Your task to perform on an android device: open chrome privacy settings Image 0: 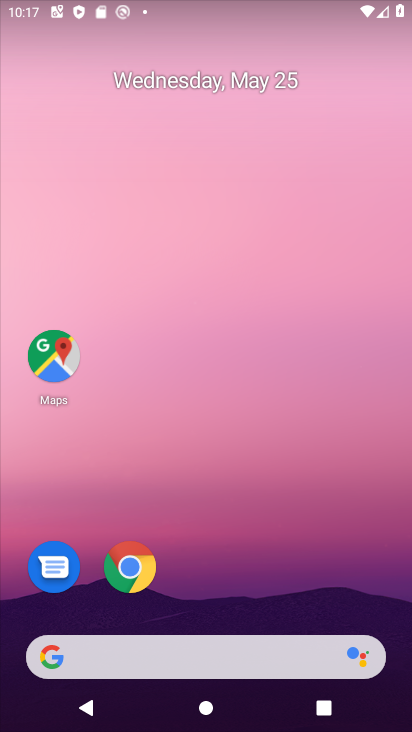
Step 0: drag from (225, 611) to (405, 86)
Your task to perform on an android device: open chrome privacy settings Image 1: 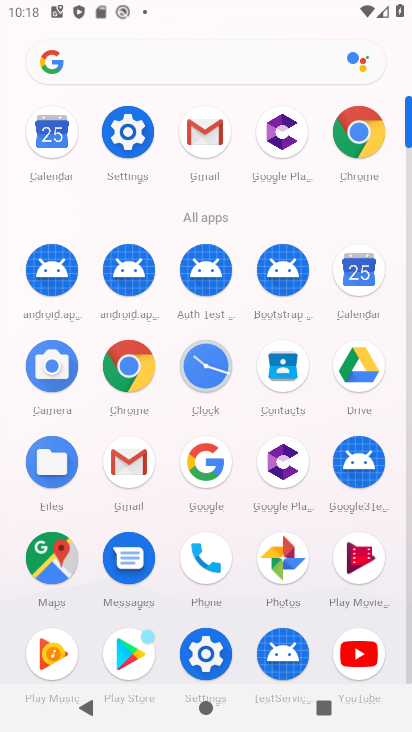
Step 1: click (214, 649)
Your task to perform on an android device: open chrome privacy settings Image 2: 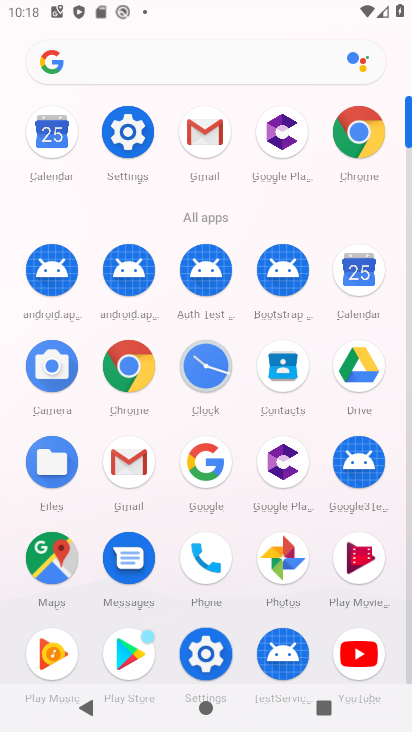
Step 2: click (221, 672)
Your task to perform on an android device: open chrome privacy settings Image 3: 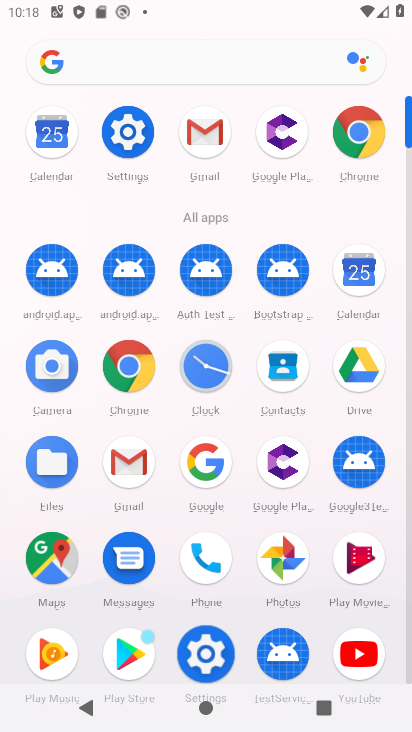
Step 3: click (210, 673)
Your task to perform on an android device: open chrome privacy settings Image 4: 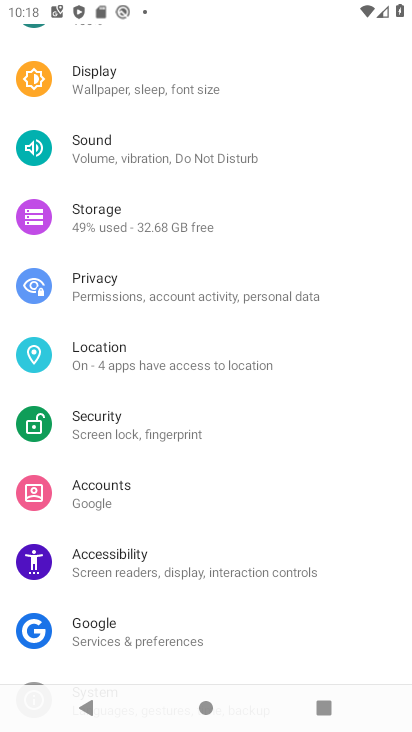
Step 4: click (110, 284)
Your task to perform on an android device: open chrome privacy settings Image 5: 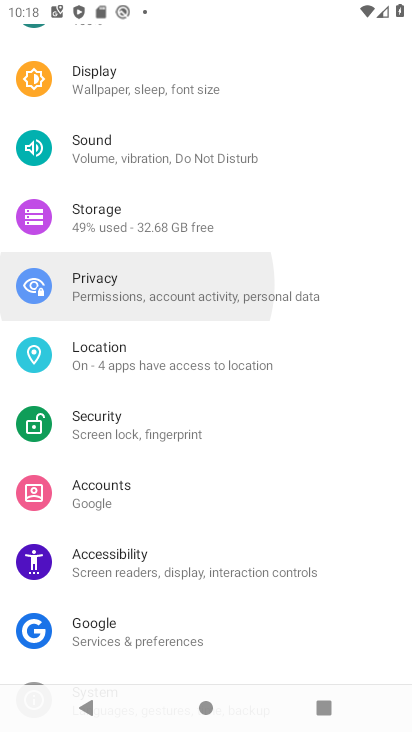
Step 5: click (110, 284)
Your task to perform on an android device: open chrome privacy settings Image 6: 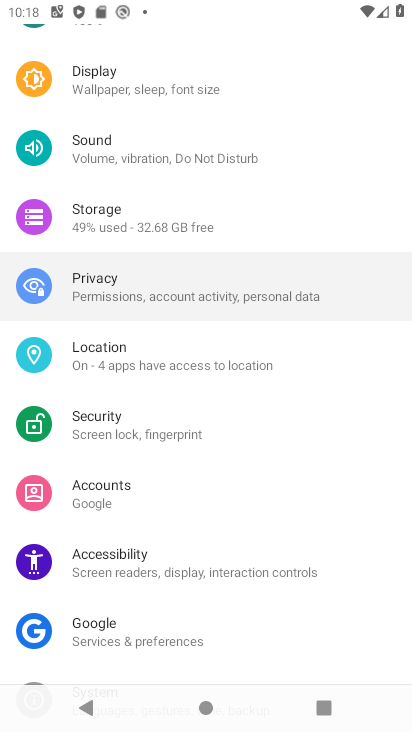
Step 6: click (110, 284)
Your task to perform on an android device: open chrome privacy settings Image 7: 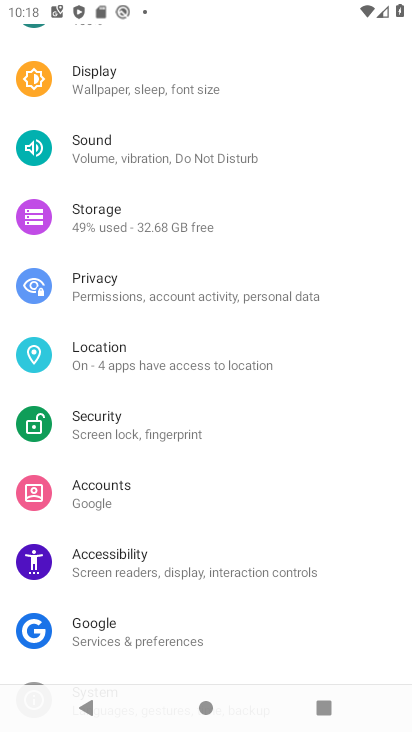
Step 7: click (111, 285)
Your task to perform on an android device: open chrome privacy settings Image 8: 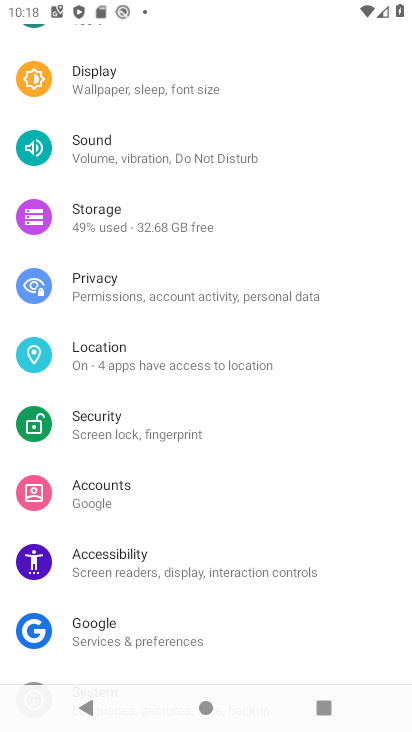
Step 8: click (116, 288)
Your task to perform on an android device: open chrome privacy settings Image 9: 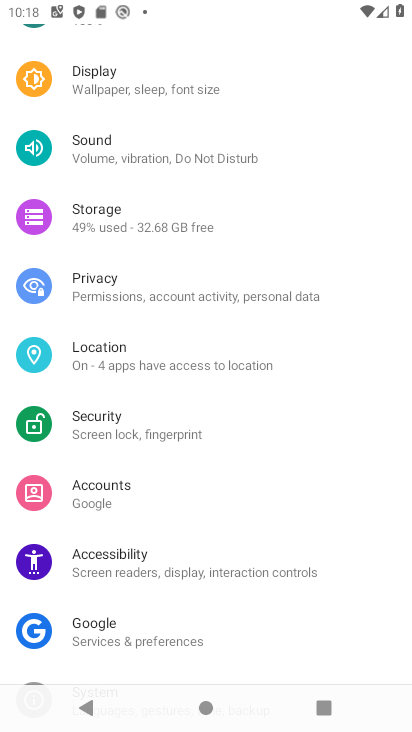
Step 9: click (117, 287)
Your task to perform on an android device: open chrome privacy settings Image 10: 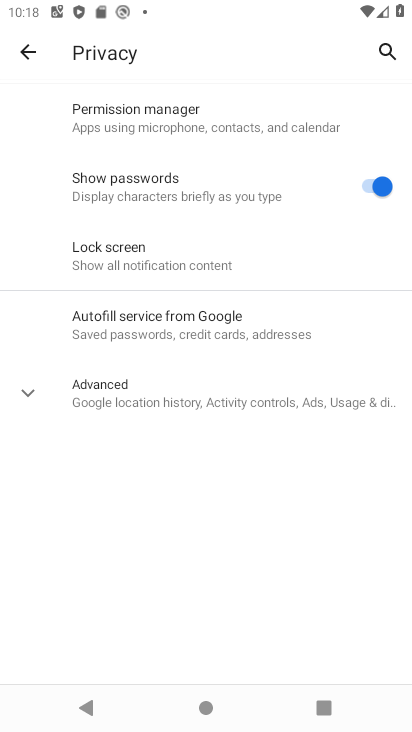
Step 10: task complete